Your task to perform on an android device: Is it going to rain this weekend? Image 0: 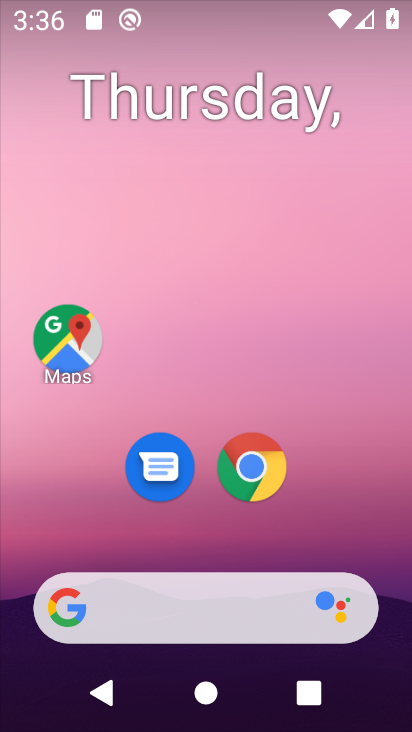
Step 0: drag from (182, 530) to (228, 46)
Your task to perform on an android device: Is it going to rain this weekend? Image 1: 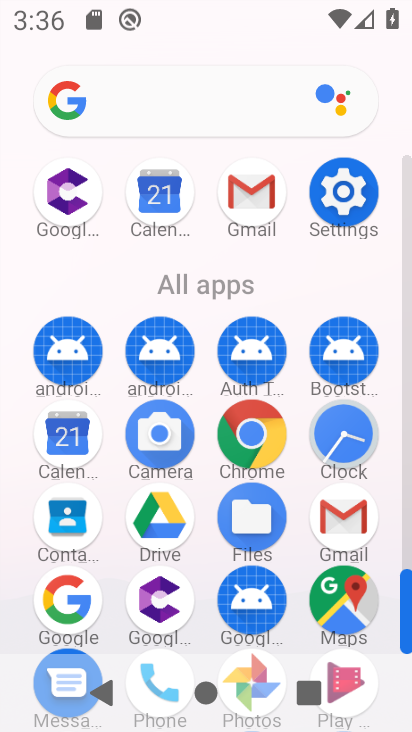
Step 1: click (202, 118)
Your task to perform on an android device: Is it going to rain this weekend? Image 2: 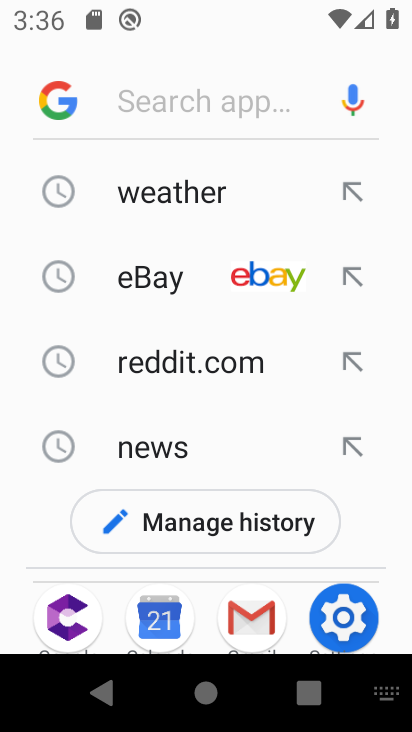
Step 2: click (145, 188)
Your task to perform on an android device: Is it going to rain this weekend? Image 3: 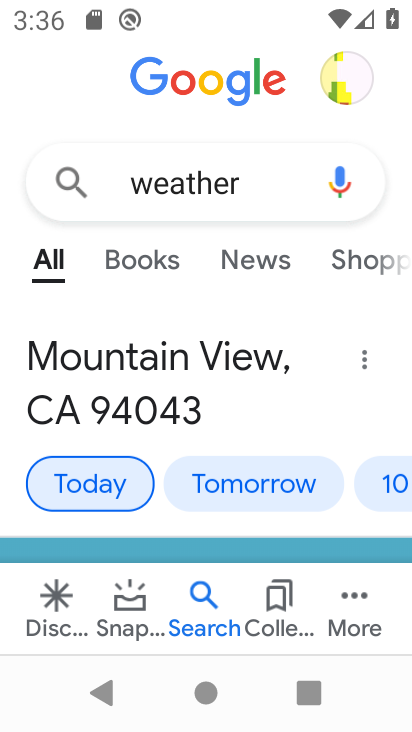
Step 3: task complete